Your task to perform on an android device: change notifications settings Image 0: 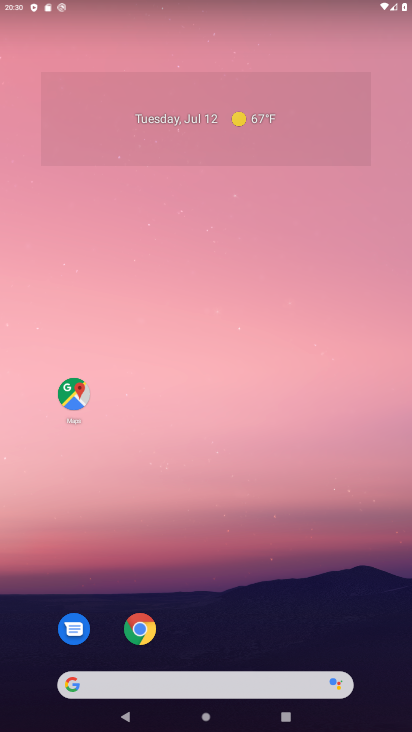
Step 0: drag from (156, 717) to (277, 79)
Your task to perform on an android device: change notifications settings Image 1: 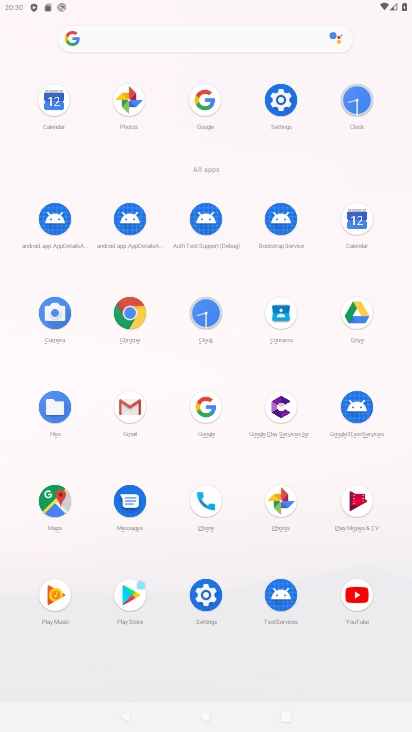
Step 1: click (285, 79)
Your task to perform on an android device: change notifications settings Image 2: 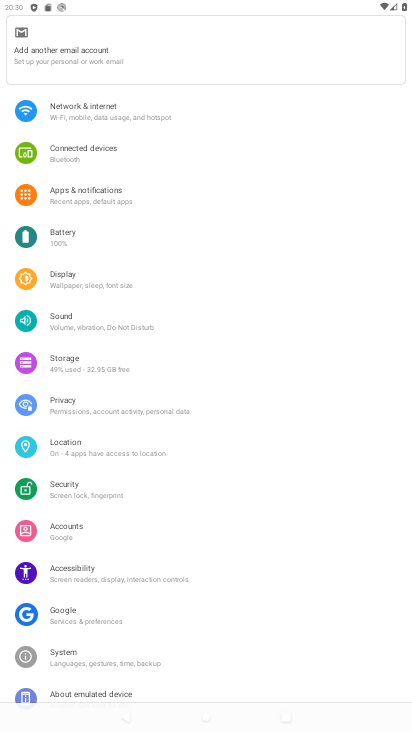
Step 2: click (138, 192)
Your task to perform on an android device: change notifications settings Image 3: 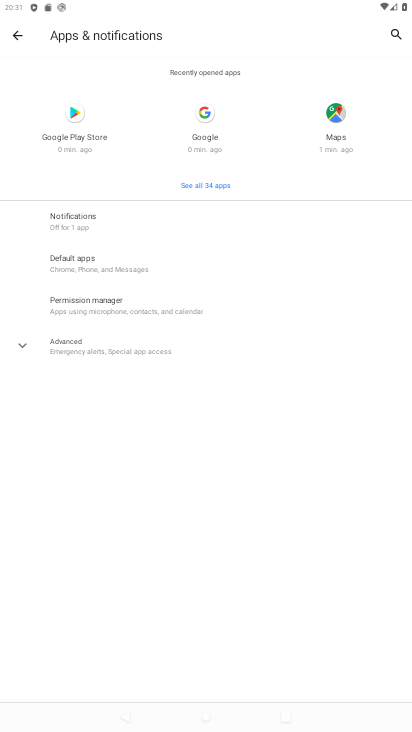
Step 3: click (94, 221)
Your task to perform on an android device: change notifications settings Image 4: 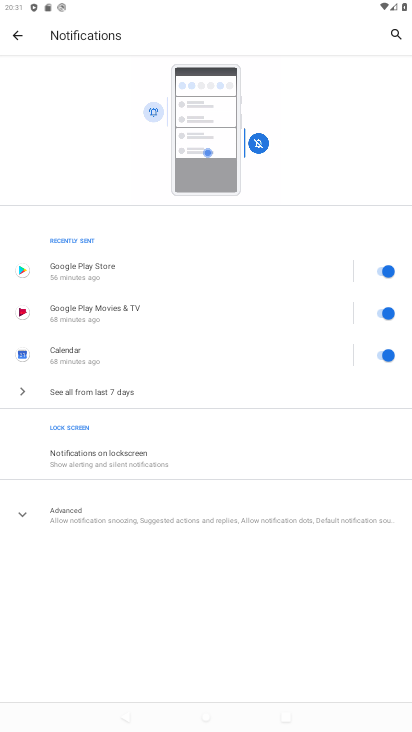
Step 4: click (378, 308)
Your task to perform on an android device: change notifications settings Image 5: 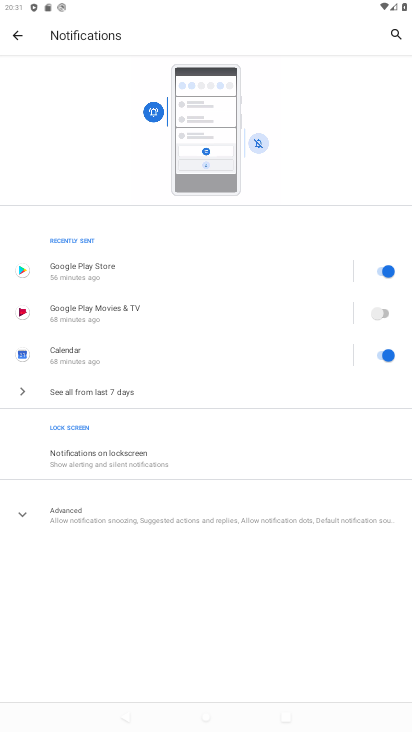
Step 5: task complete